Your task to perform on an android device: turn off location history Image 0: 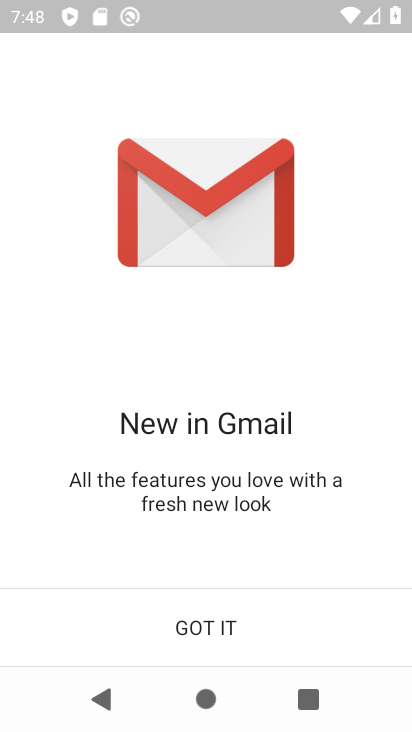
Step 0: press home button
Your task to perform on an android device: turn off location history Image 1: 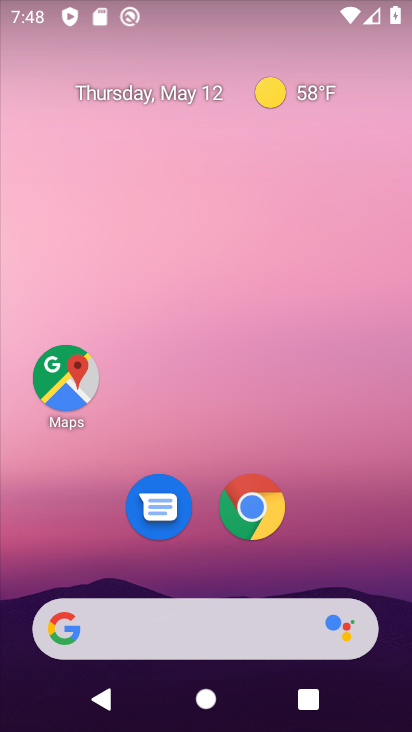
Step 1: drag from (247, 573) to (238, 305)
Your task to perform on an android device: turn off location history Image 2: 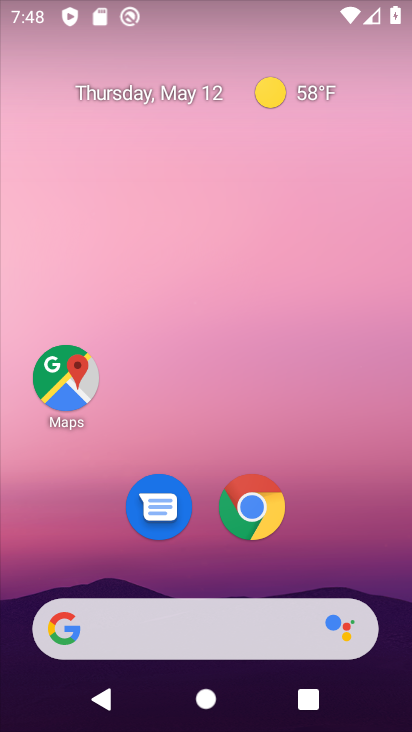
Step 2: drag from (232, 552) to (200, 128)
Your task to perform on an android device: turn off location history Image 3: 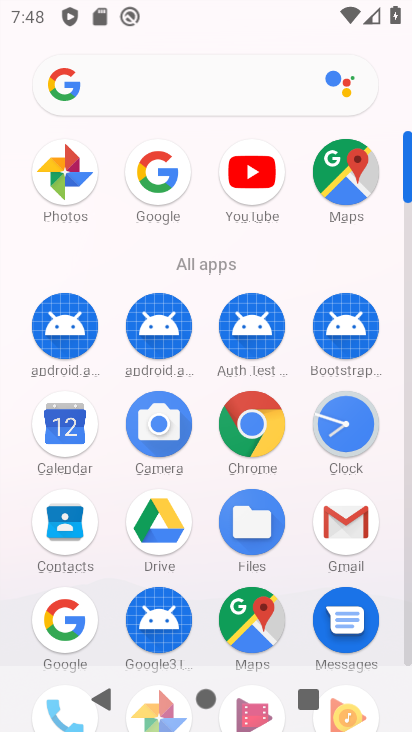
Step 3: drag from (234, 562) to (230, 229)
Your task to perform on an android device: turn off location history Image 4: 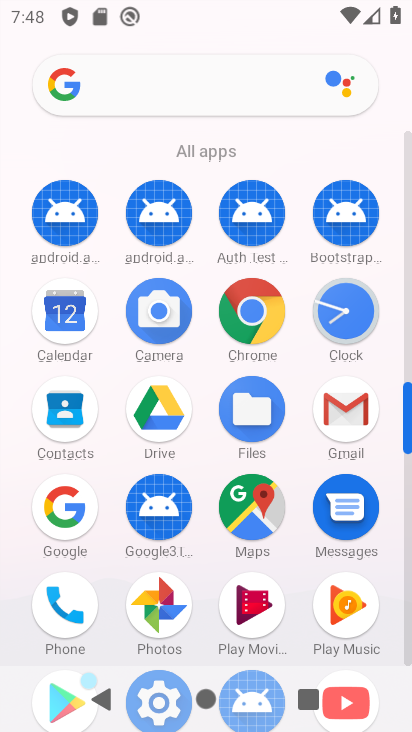
Step 4: drag from (168, 563) to (164, 360)
Your task to perform on an android device: turn off location history Image 5: 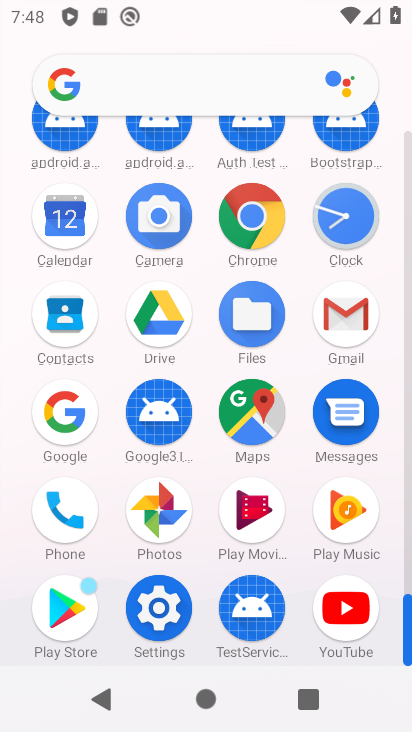
Step 5: click (159, 597)
Your task to perform on an android device: turn off location history Image 6: 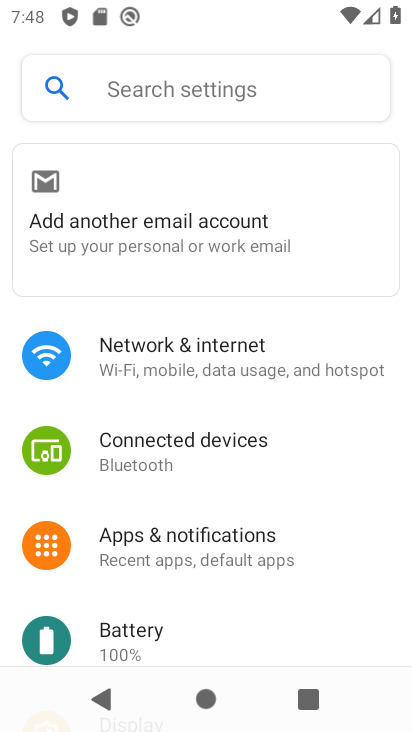
Step 6: drag from (286, 570) to (274, 230)
Your task to perform on an android device: turn off location history Image 7: 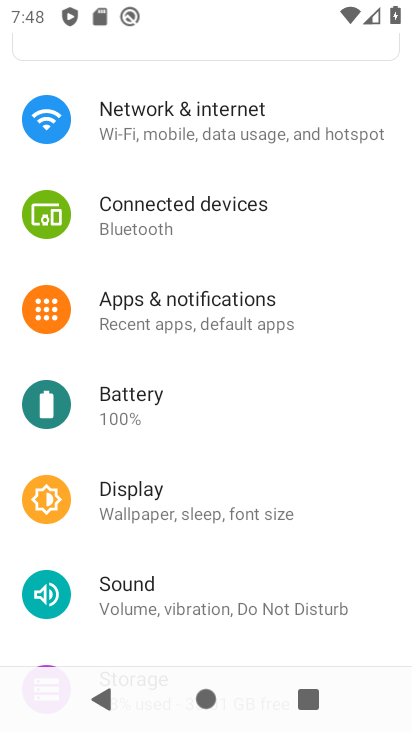
Step 7: drag from (241, 553) to (272, 239)
Your task to perform on an android device: turn off location history Image 8: 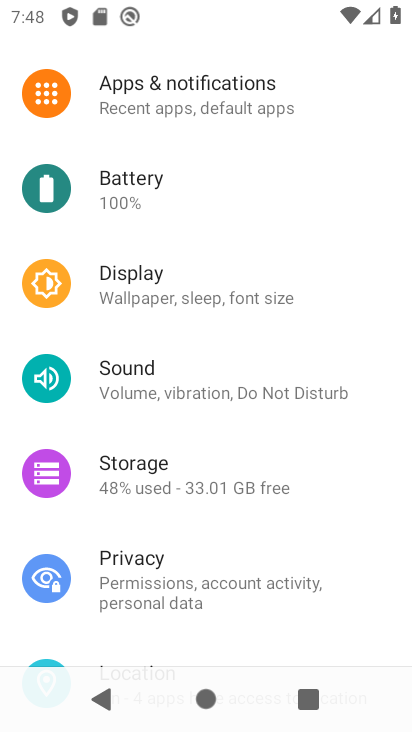
Step 8: drag from (209, 538) to (277, 229)
Your task to perform on an android device: turn off location history Image 9: 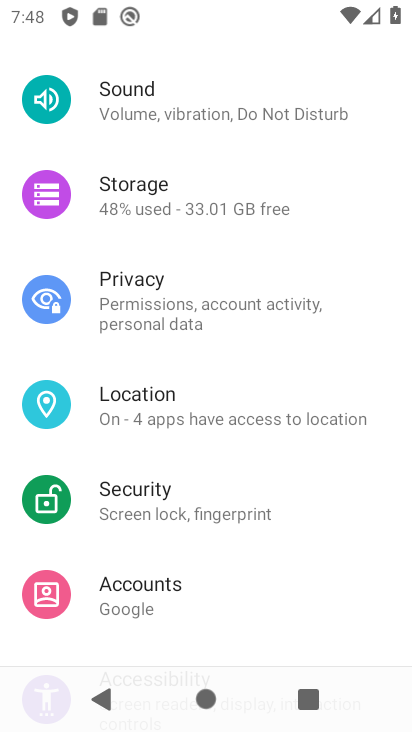
Step 9: click (192, 404)
Your task to perform on an android device: turn off location history Image 10: 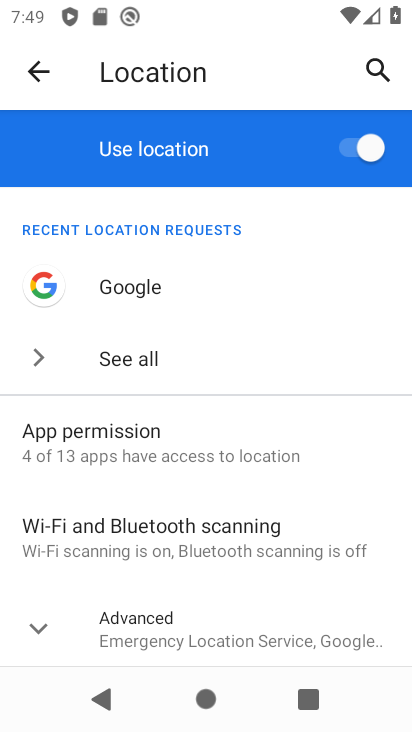
Step 10: drag from (205, 561) to (245, 359)
Your task to perform on an android device: turn off location history Image 11: 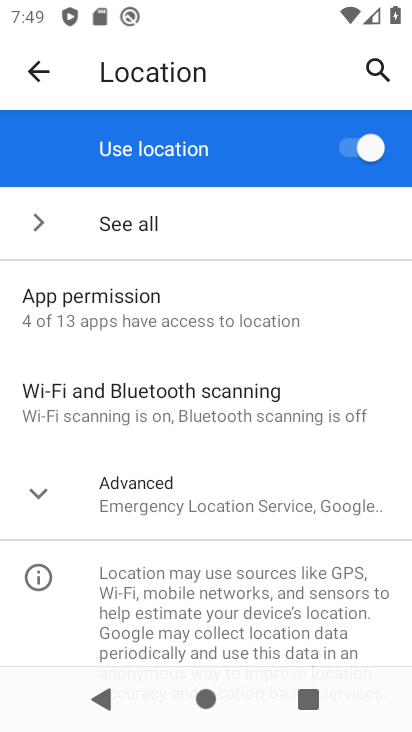
Step 11: click (190, 496)
Your task to perform on an android device: turn off location history Image 12: 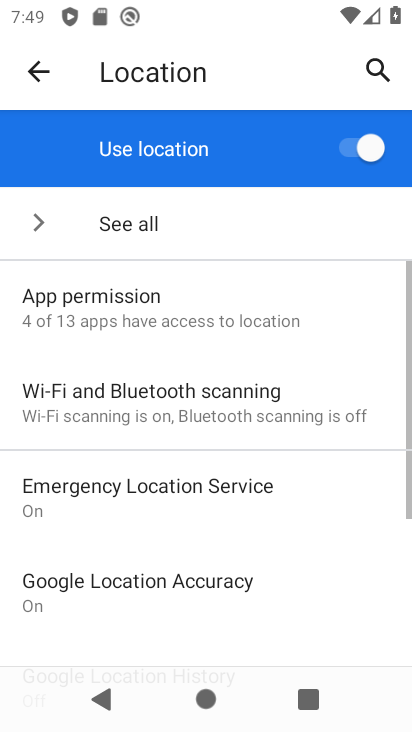
Step 12: drag from (230, 573) to (244, 328)
Your task to perform on an android device: turn off location history Image 13: 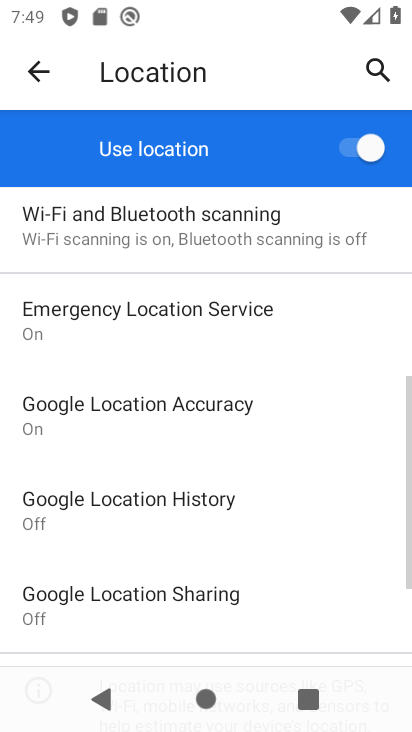
Step 13: click (176, 498)
Your task to perform on an android device: turn off location history Image 14: 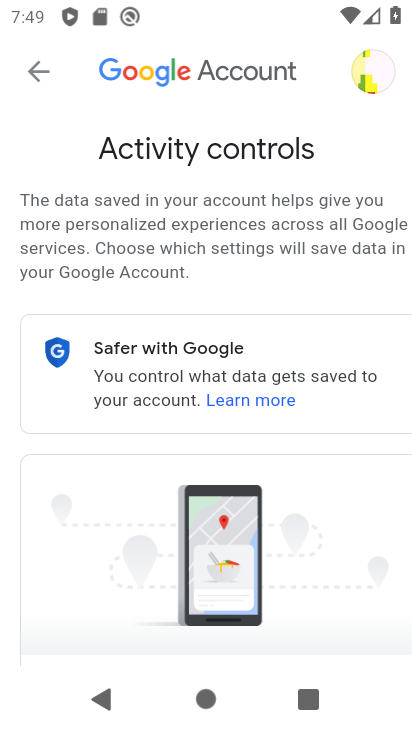
Step 14: drag from (239, 586) to (304, 230)
Your task to perform on an android device: turn off location history Image 15: 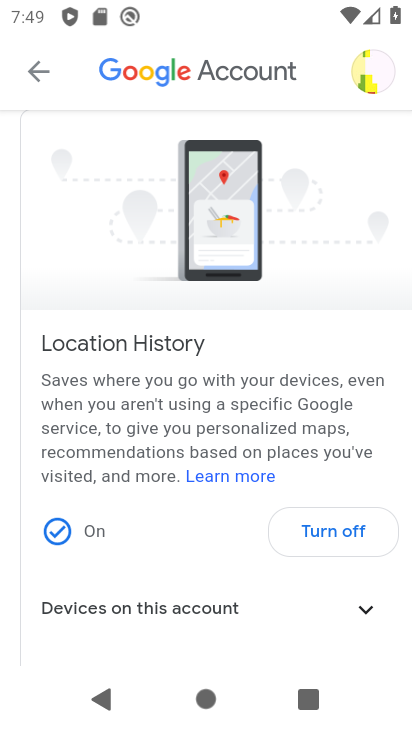
Step 15: click (354, 524)
Your task to perform on an android device: turn off location history Image 16: 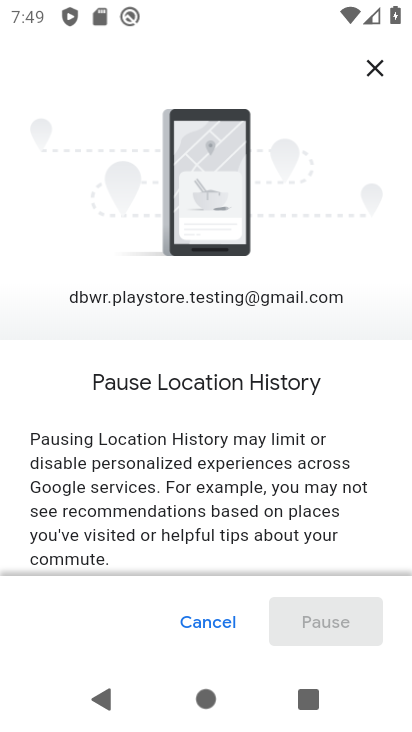
Step 16: drag from (348, 524) to (351, 111)
Your task to perform on an android device: turn off location history Image 17: 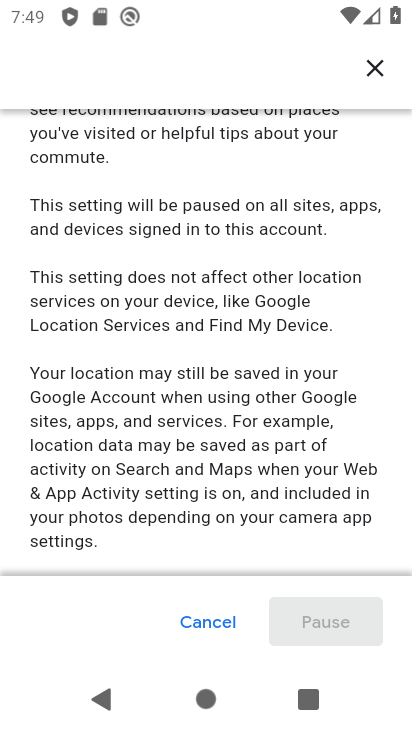
Step 17: drag from (361, 543) to (383, 185)
Your task to perform on an android device: turn off location history Image 18: 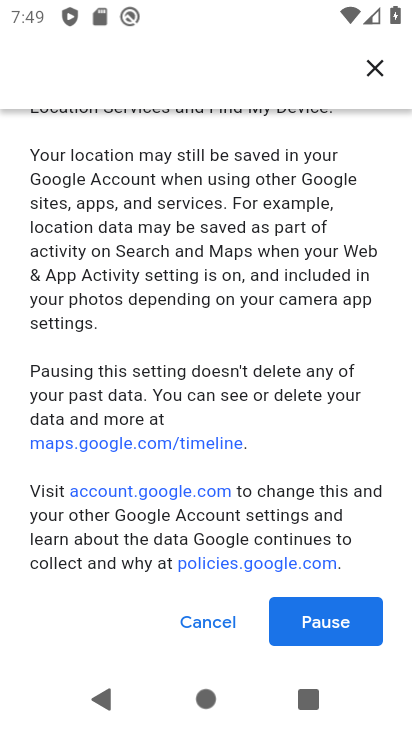
Step 18: click (349, 607)
Your task to perform on an android device: turn off location history Image 19: 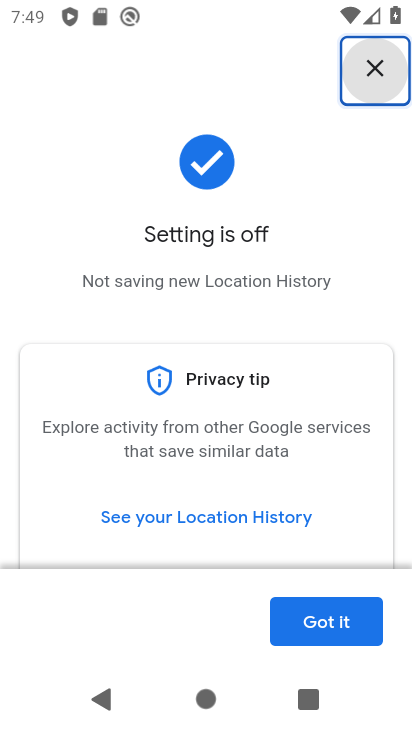
Step 19: task complete